Your task to perform on an android device: Go to wifi settings Image 0: 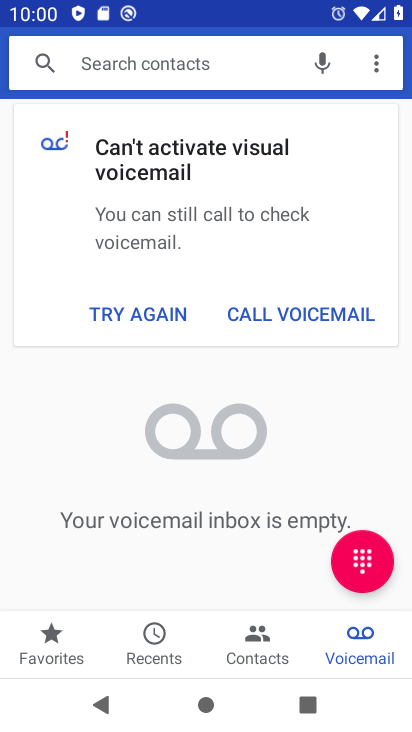
Step 0: press home button
Your task to perform on an android device: Go to wifi settings Image 1: 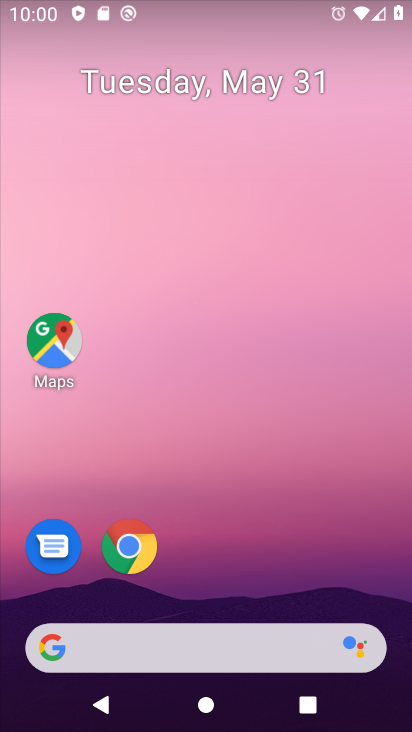
Step 1: drag from (218, 418) to (332, 30)
Your task to perform on an android device: Go to wifi settings Image 2: 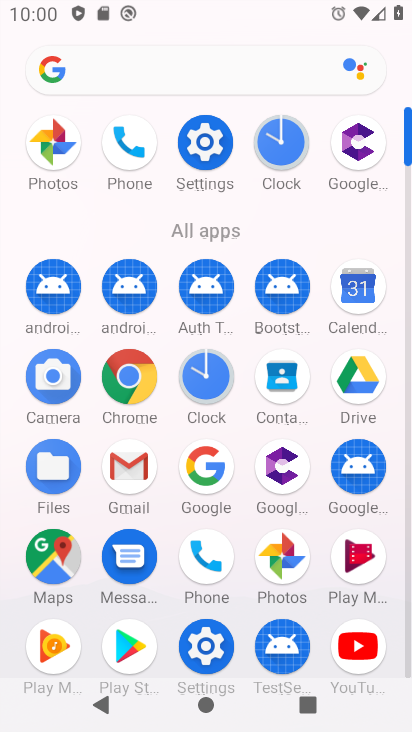
Step 2: click (201, 152)
Your task to perform on an android device: Go to wifi settings Image 3: 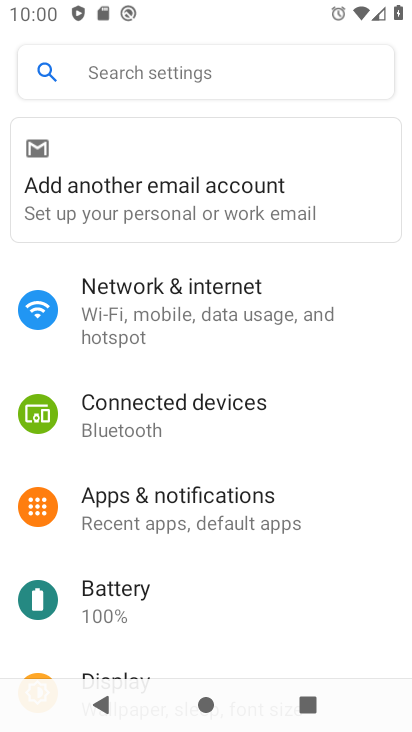
Step 3: click (143, 329)
Your task to perform on an android device: Go to wifi settings Image 4: 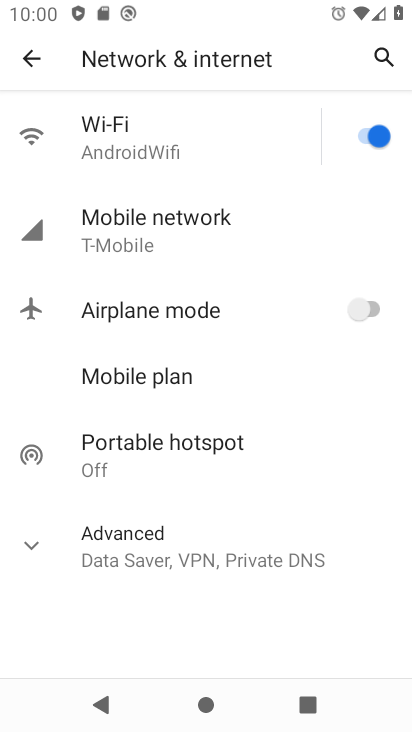
Step 4: click (222, 131)
Your task to perform on an android device: Go to wifi settings Image 5: 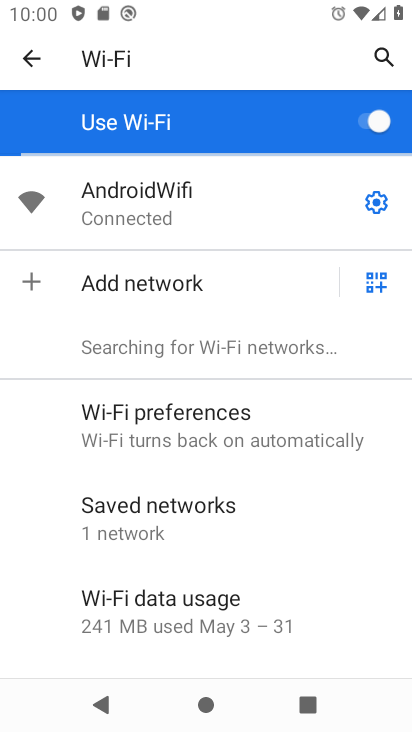
Step 5: task complete